Your task to perform on an android device: Open calendar and show me the second week of next month Image 0: 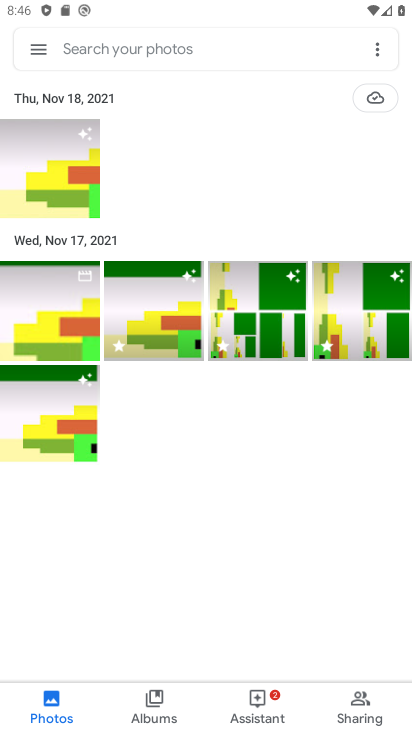
Step 0: press home button
Your task to perform on an android device: Open calendar and show me the second week of next month Image 1: 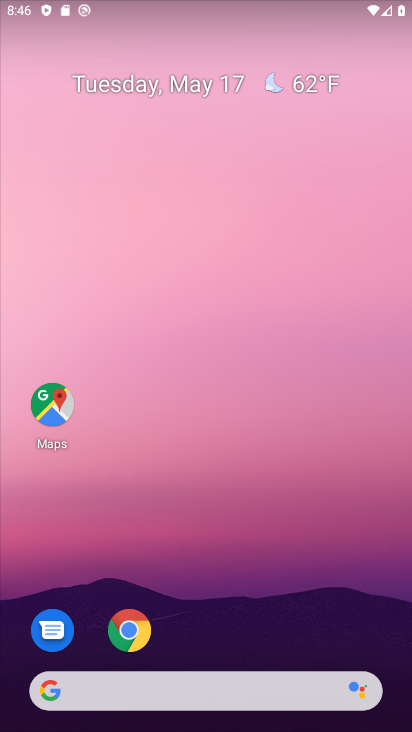
Step 1: drag from (273, 623) to (227, 105)
Your task to perform on an android device: Open calendar and show me the second week of next month Image 2: 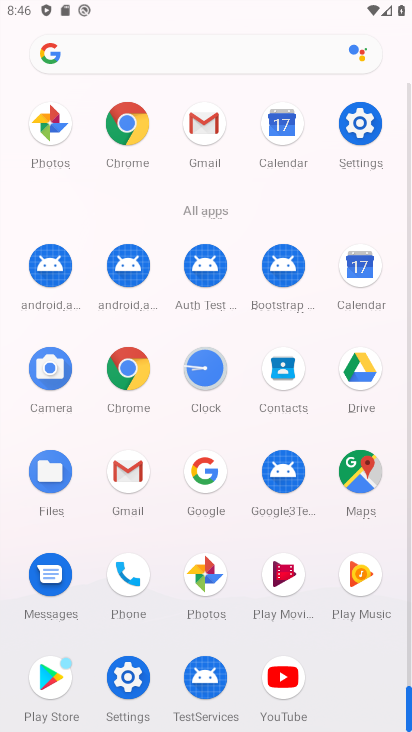
Step 2: click (341, 294)
Your task to perform on an android device: Open calendar and show me the second week of next month Image 3: 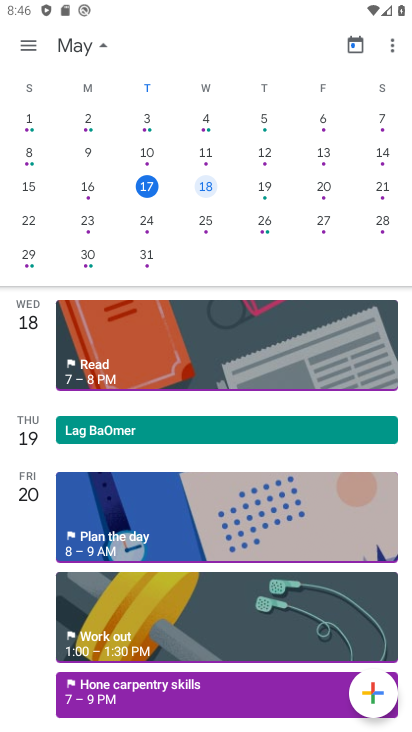
Step 3: drag from (331, 156) to (8, 149)
Your task to perform on an android device: Open calendar and show me the second week of next month Image 4: 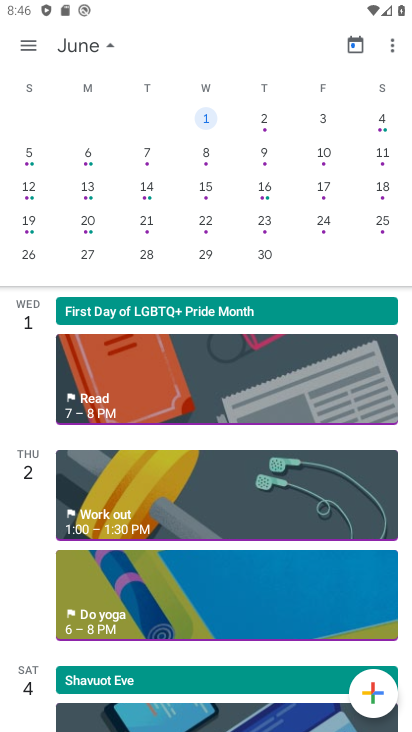
Step 4: click (37, 41)
Your task to perform on an android device: Open calendar and show me the second week of next month Image 5: 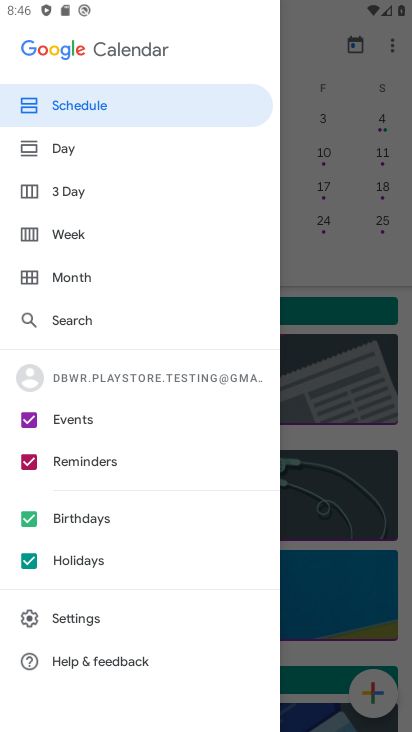
Step 5: click (90, 244)
Your task to perform on an android device: Open calendar and show me the second week of next month Image 6: 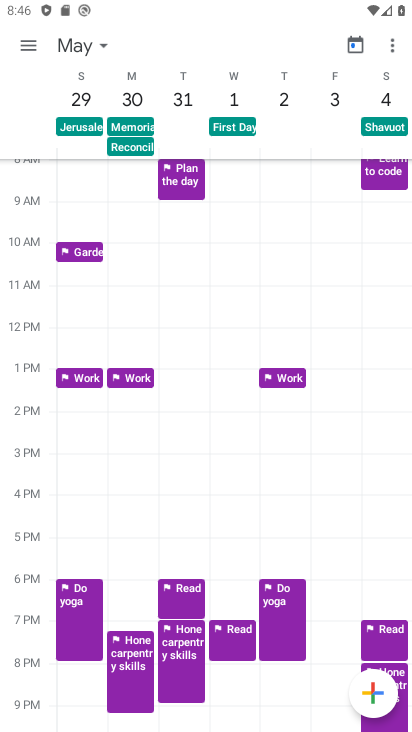
Step 6: click (89, 42)
Your task to perform on an android device: Open calendar and show me the second week of next month Image 7: 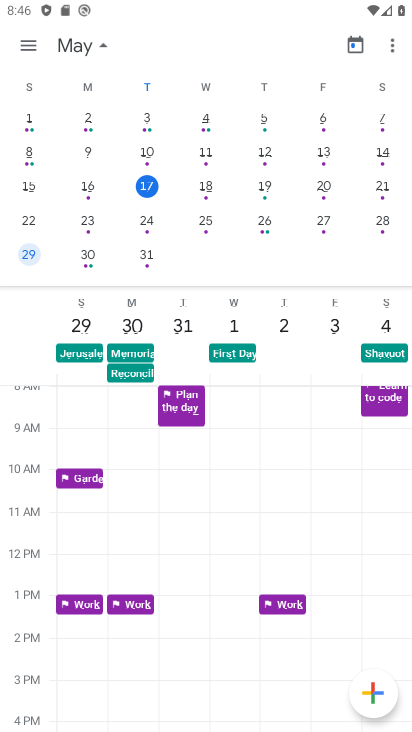
Step 7: drag from (335, 170) to (19, 178)
Your task to perform on an android device: Open calendar and show me the second week of next month Image 8: 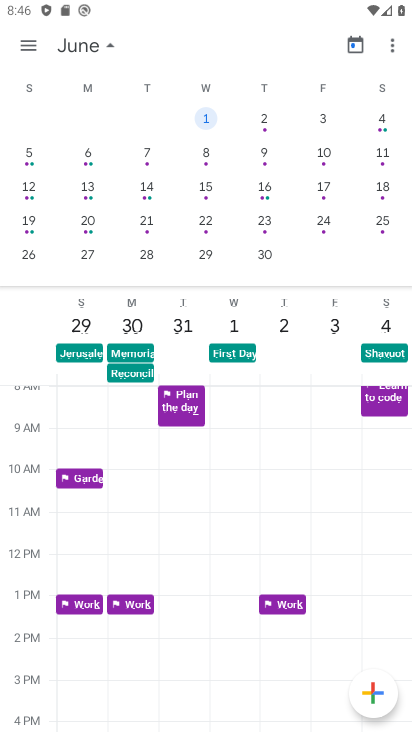
Step 8: click (24, 184)
Your task to perform on an android device: Open calendar and show me the second week of next month Image 9: 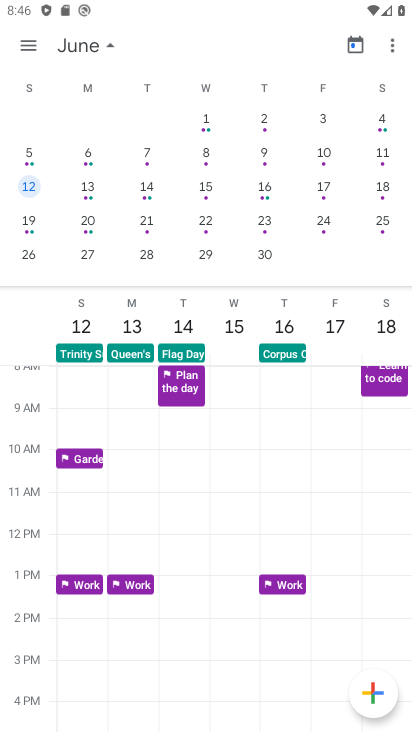
Step 9: task complete